Your task to perform on an android device: turn notification dots on Image 0: 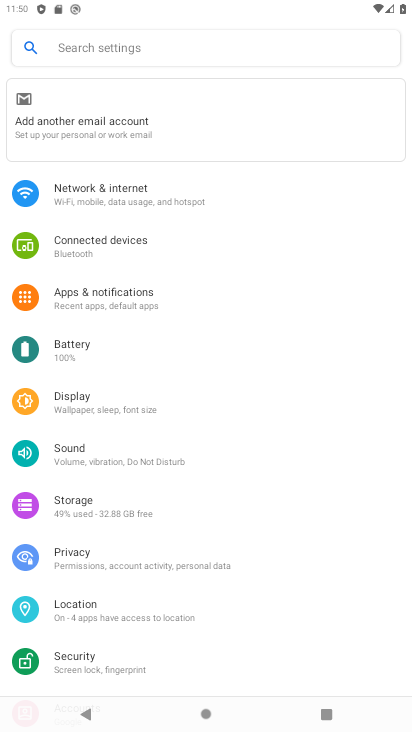
Step 0: click (171, 303)
Your task to perform on an android device: turn notification dots on Image 1: 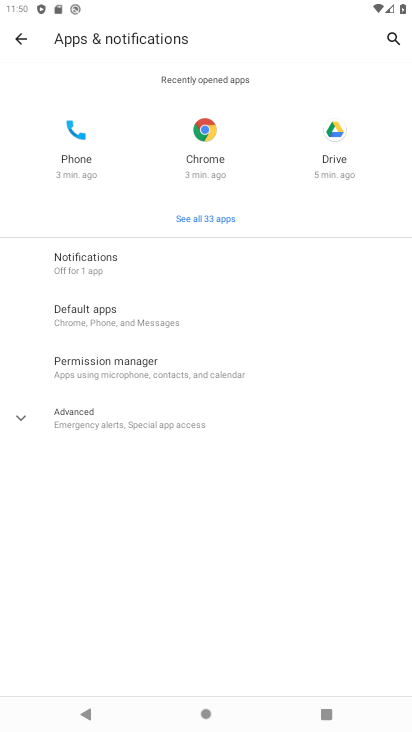
Step 1: click (90, 264)
Your task to perform on an android device: turn notification dots on Image 2: 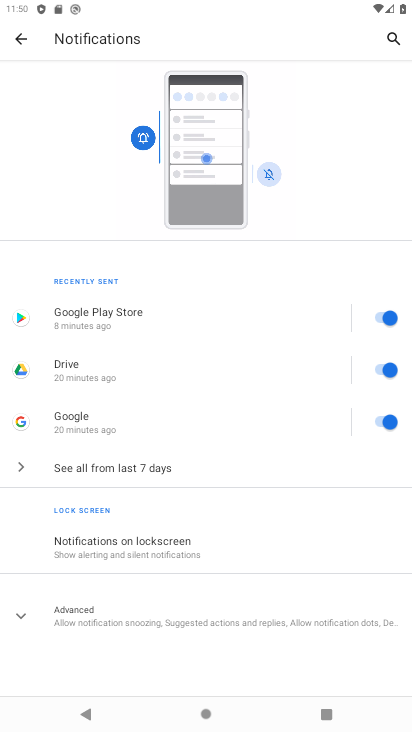
Step 2: click (109, 617)
Your task to perform on an android device: turn notification dots on Image 3: 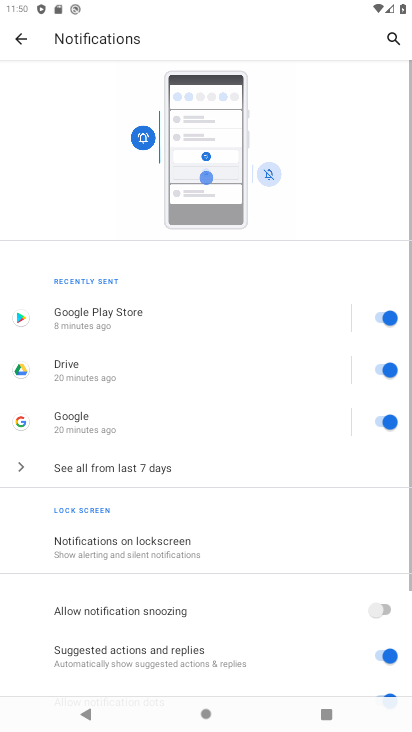
Step 3: task complete